Your task to perform on an android device: turn off priority inbox in the gmail app Image 0: 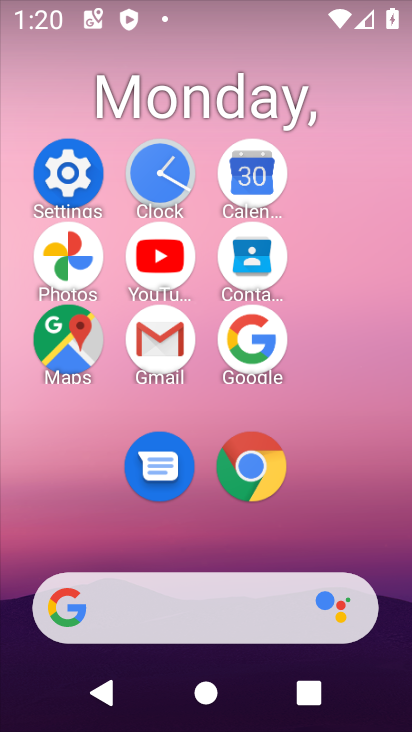
Step 0: click (174, 335)
Your task to perform on an android device: turn off priority inbox in the gmail app Image 1: 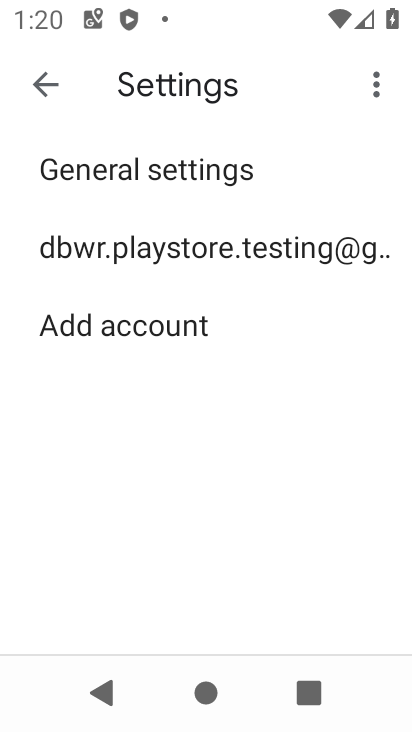
Step 1: click (51, 59)
Your task to perform on an android device: turn off priority inbox in the gmail app Image 2: 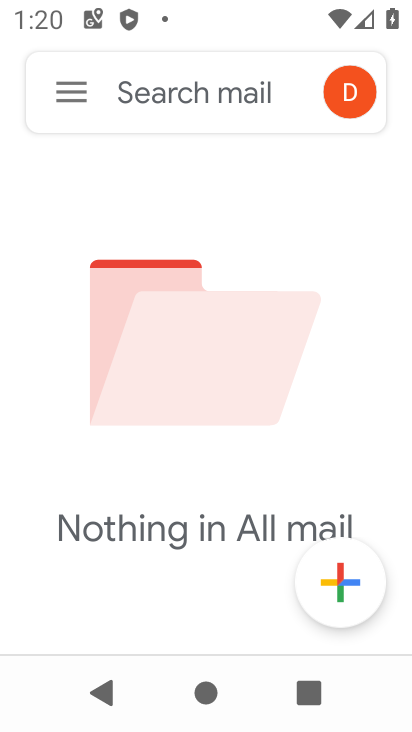
Step 2: click (75, 102)
Your task to perform on an android device: turn off priority inbox in the gmail app Image 3: 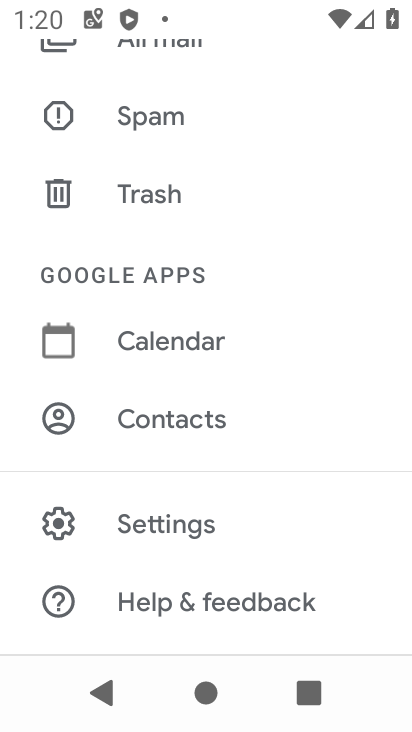
Step 3: click (257, 521)
Your task to perform on an android device: turn off priority inbox in the gmail app Image 4: 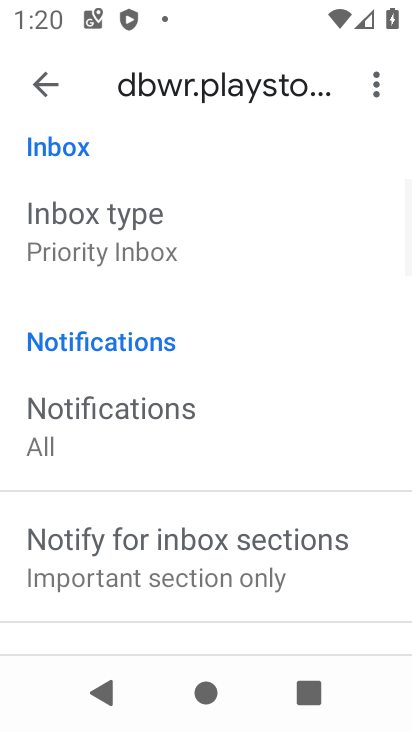
Step 4: click (235, 221)
Your task to perform on an android device: turn off priority inbox in the gmail app Image 5: 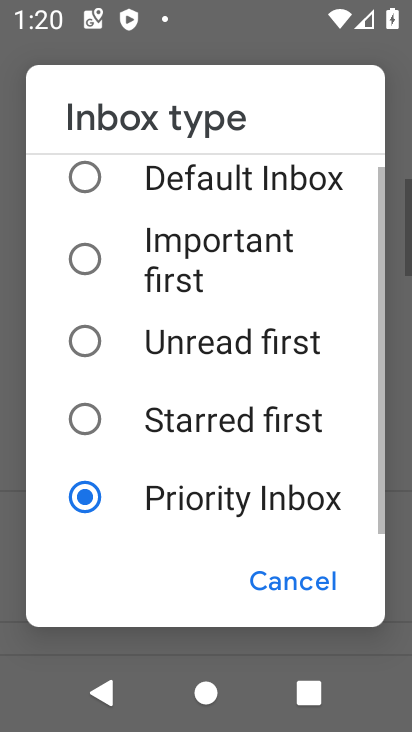
Step 5: click (236, 180)
Your task to perform on an android device: turn off priority inbox in the gmail app Image 6: 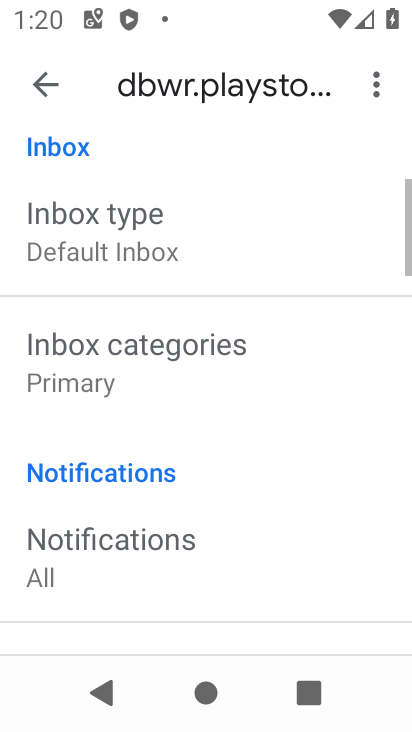
Step 6: task complete